Your task to perform on an android device: stop showing notifications on the lock screen Image 0: 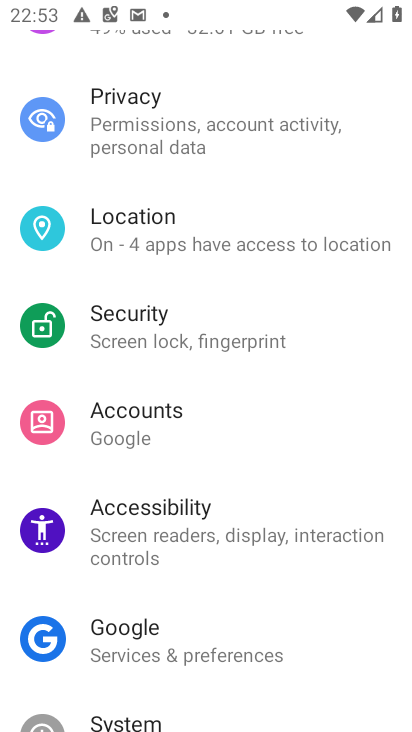
Step 0: drag from (187, 120) to (122, 640)
Your task to perform on an android device: stop showing notifications on the lock screen Image 1: 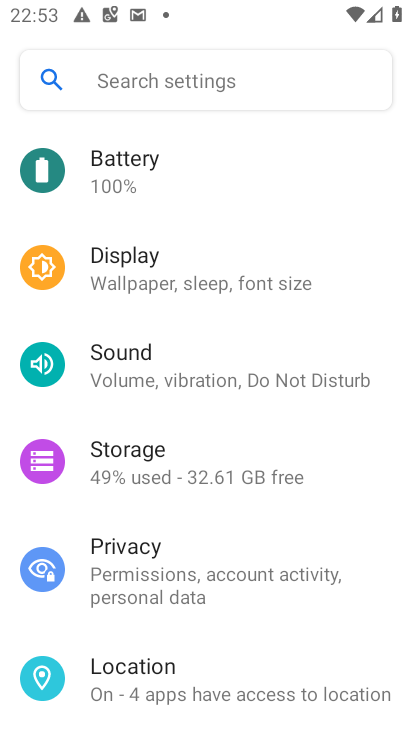
Step 1: drag from (164, 204) to (152, 637)
Your task to perform on an android device: stop showing notifications on the lock screen Image 2: 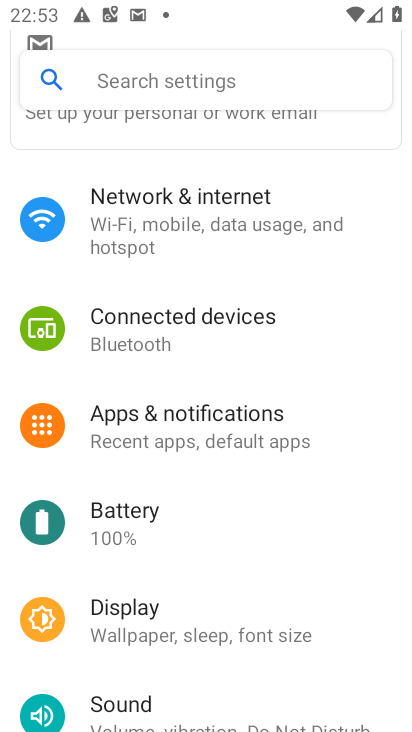
Step 2: click (182, 437)
Your task to perform on an android device: stop showing notifications on the lock screen Image 3: 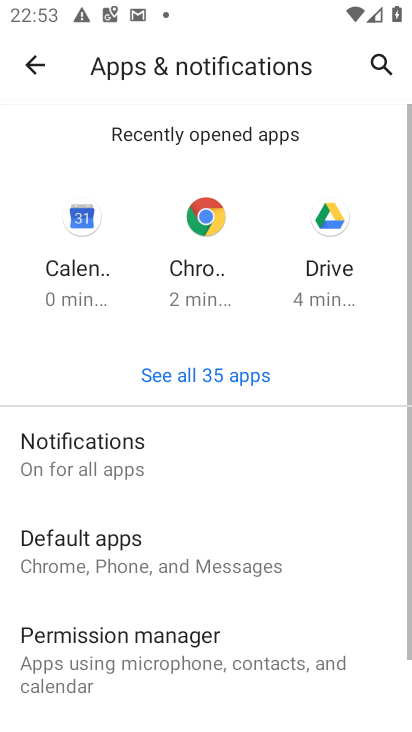
Step 3: drag from (201, 653) to (277, 240)
Your task to perform on an android device: stop showing notifications on the lock screen Image 4: 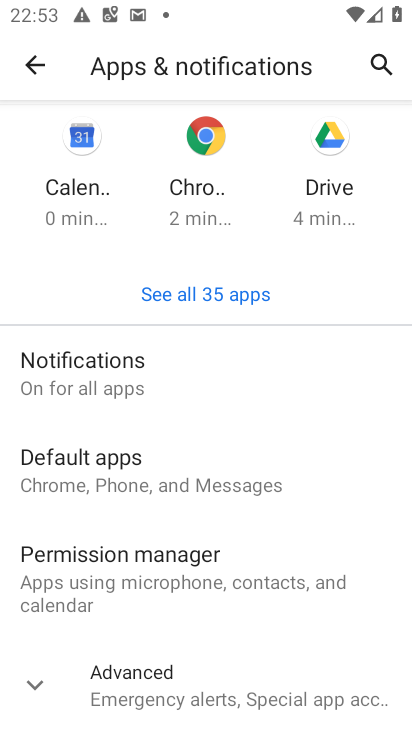
Step 4: click (158, 368)
Your task to perform on an android device: stop showing notifications on the lock screen Image 5: 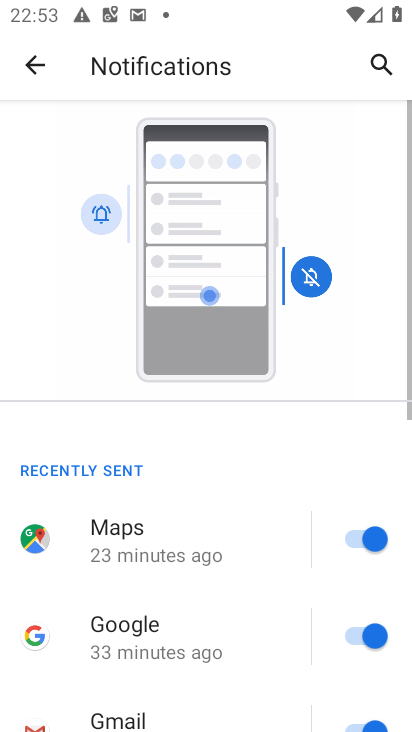
Step 5: drag from (179, 712) to (339, 57)
Your task to perform on an android device: stop showing notifications on the lock screen Image 6: 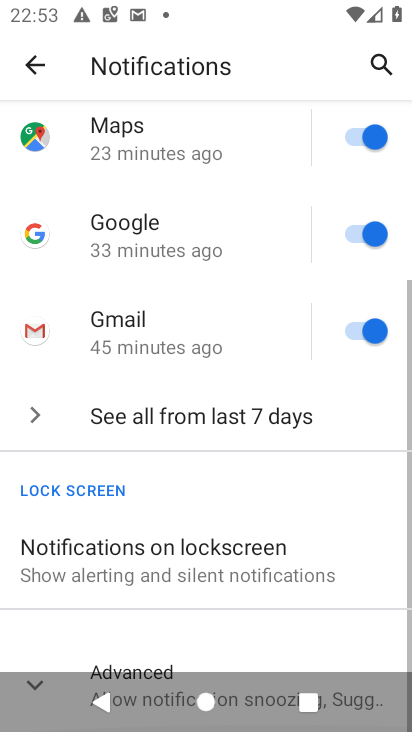
Step 6: click (235, 553)
Your task to perform on an android device: stop showing notifications on the lock screen Image 7: 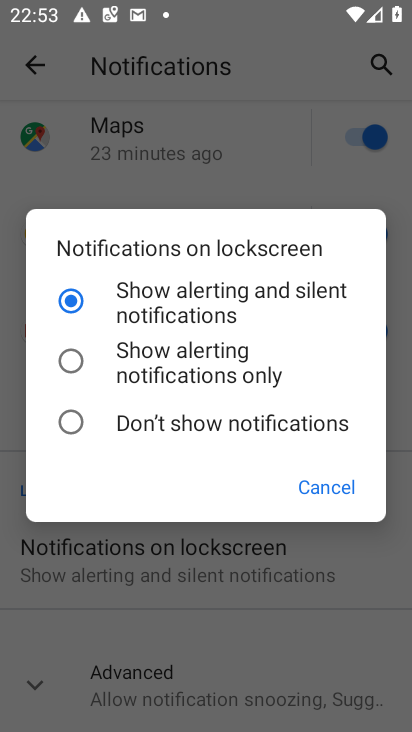
Step 7: click (70, 399)
Your task to perform on an android device: stop showing notifications on the lock screen Image 8: 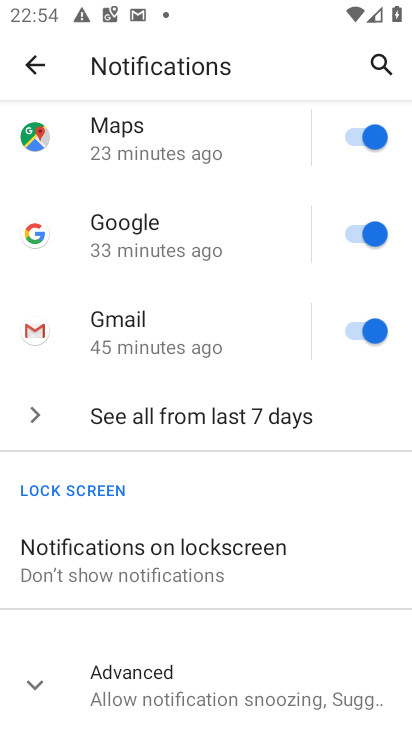
Step 8: task complete